Your task to perform on an android device: What's the weather today? Image 0: 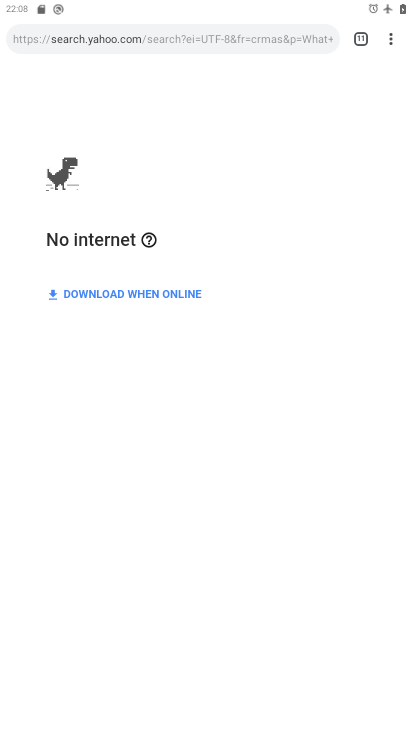
Step 0: click (390, 36)
Your task to perform on an android device: What's the weather today? Image 1: 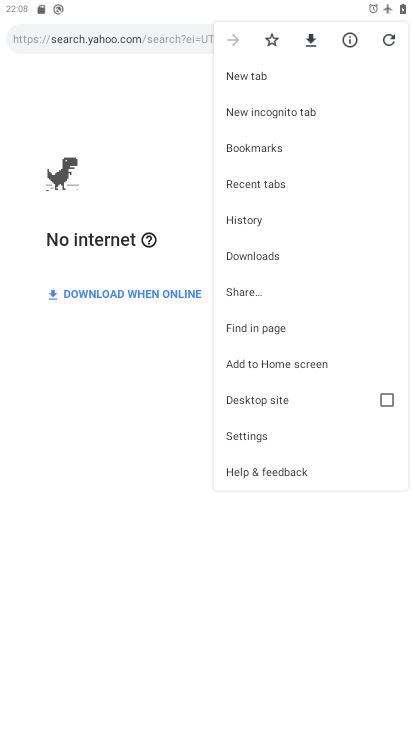
Step 1: click (248, 72)
Your task to perform on an android device: What's the weather today? Image 2: 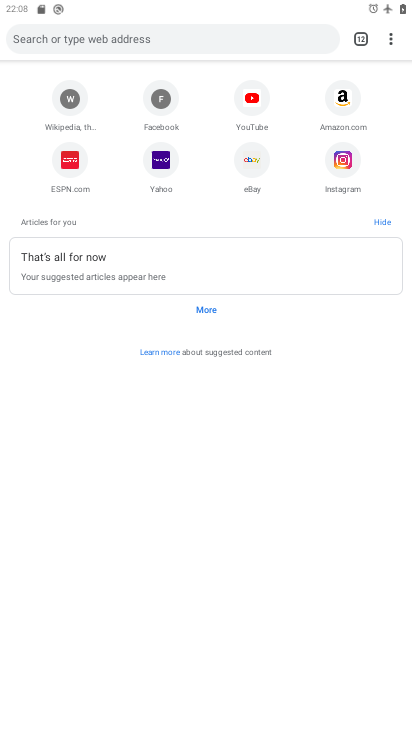
Step 2: click (235, 32)
Your task to perform on an android device: What's the weather today? Image 3: 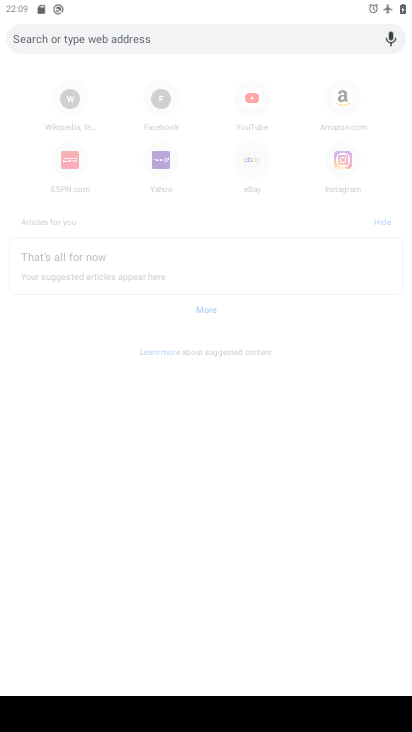
Step 3: type "What's the weather today "
Your task to perform on an android device: What's the weather today? Image 4: 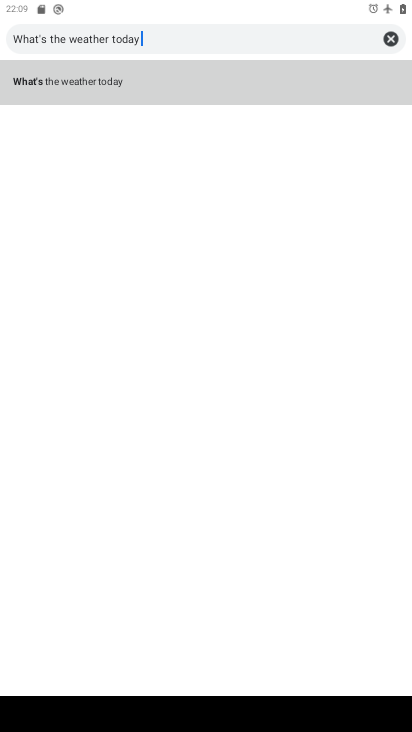
Step 4: click (122, 70)
Your task to perform on an android device: What's the weather today? Image 5: 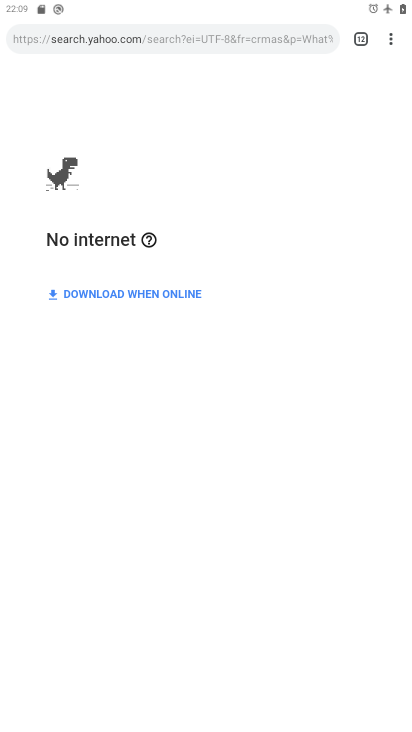
Step 5: task complete